Your task to perform on an android device: Search for vintage wall art on Etsy. Image 0: 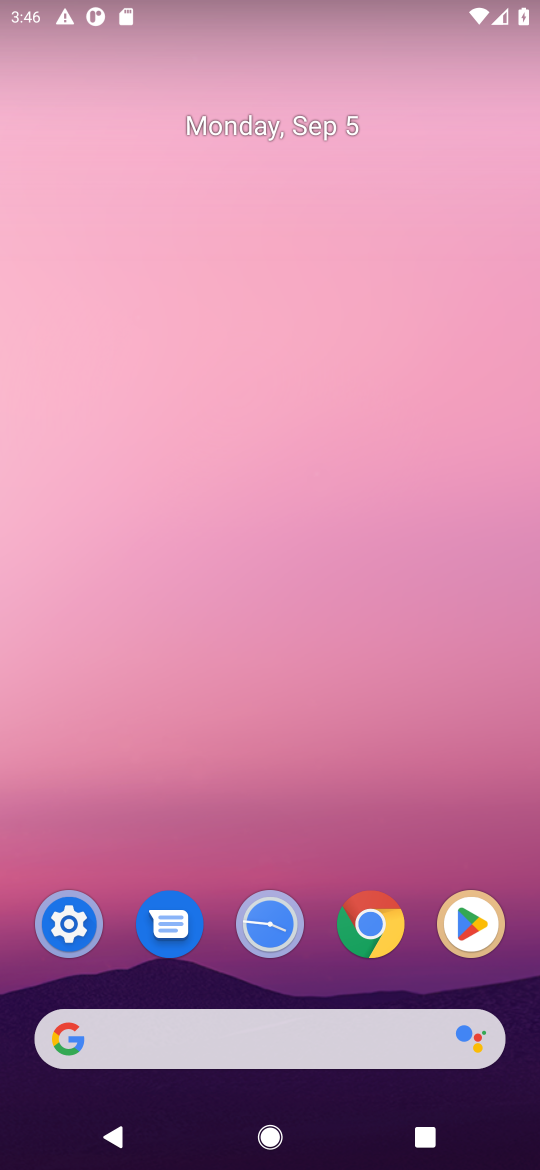
Step 0: click (374, 942)
Your task to perform on an android device: Search for vintage wall art on Etsy. Image 1: 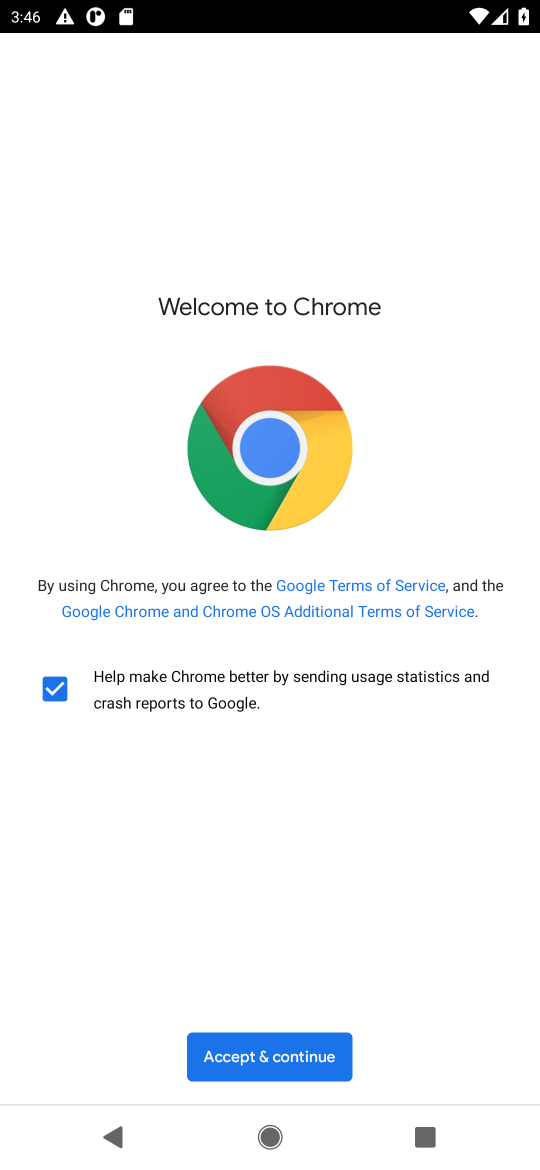
Step 1: click (241, 1063)
Your task to perform on an android device: Search for vintage wall art on Etsy. Image 2: 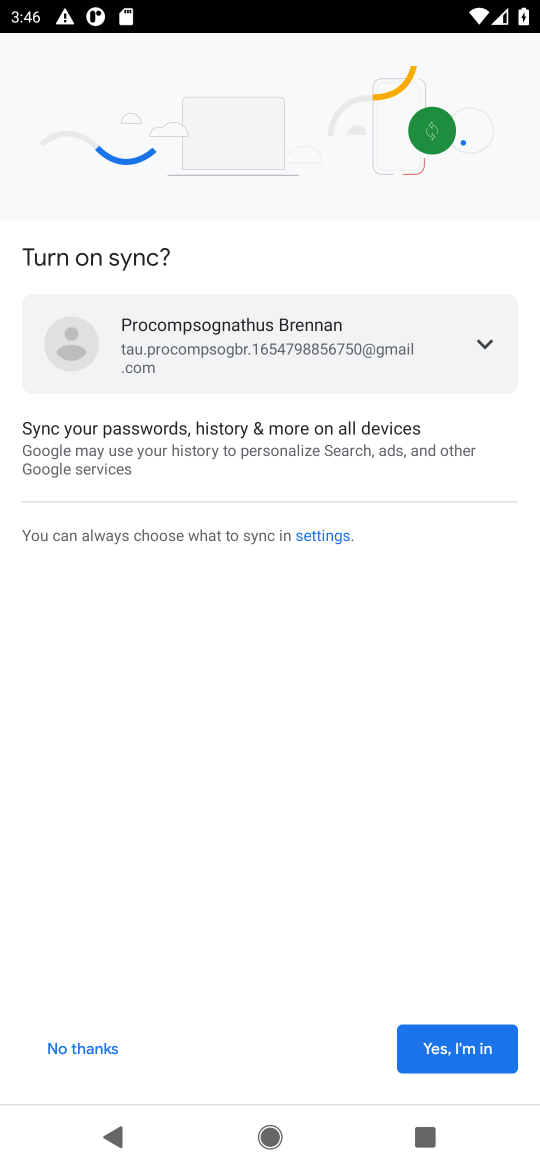
Step 2: click (457, 1037)
Your task to perform on an android device: Search for vintage wall art on Etsy. Image 3: 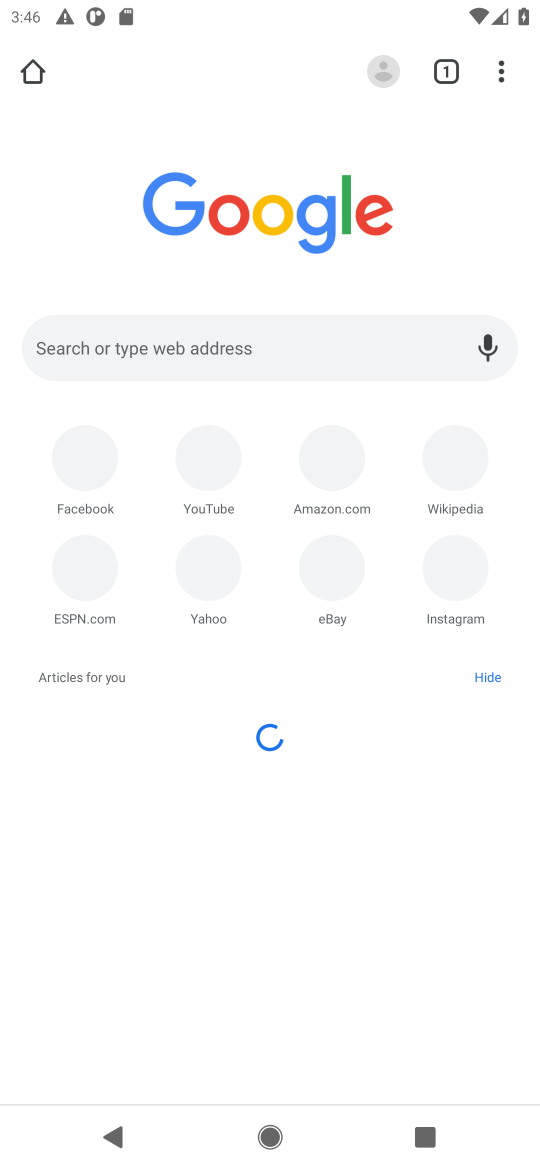
Step 3: click (204, 348)
Your task to perform on an android device: Search for vintage wall art on Etsy. Image 4: 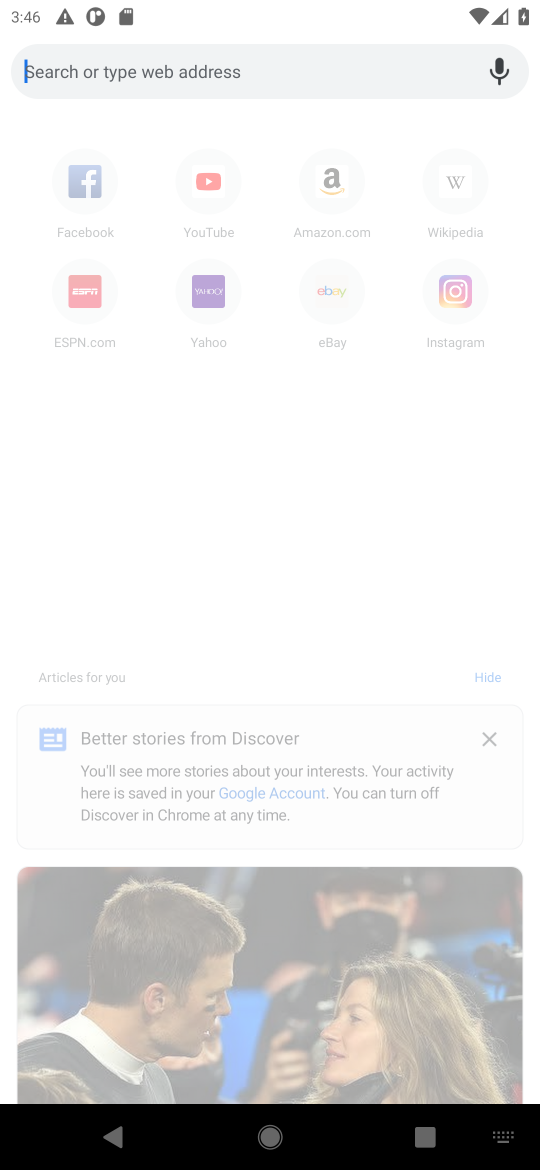
Step 4: type "etsy"
Your task to perform on an android device: Search for vintage wall art on Etsy. Image 5: 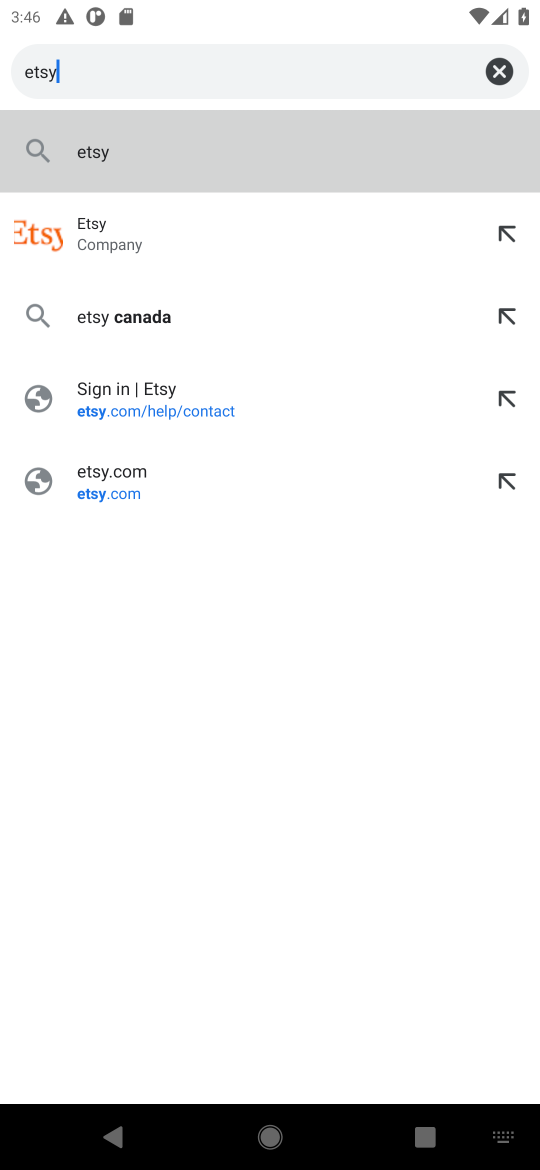
Step 5: click (95, 243)
Your task to perform on an android device: Search for vintage wall art on Etsy. Image 6: 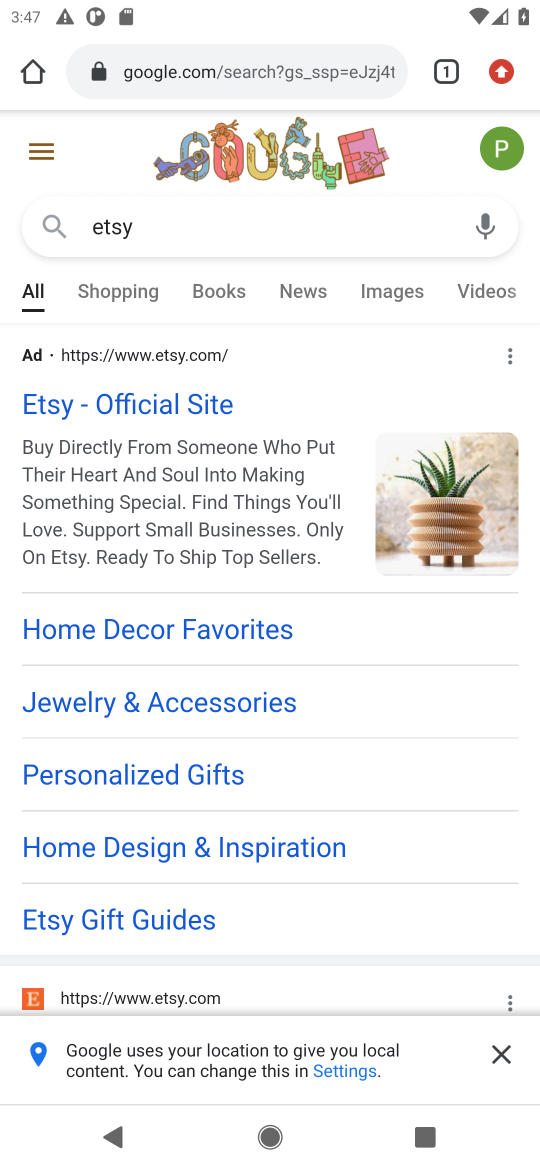
Step 6: drag from (533, 605) to (522, 885)
Your task to perform on an android device: Search for vintage wall art on Etsy. Image 7: 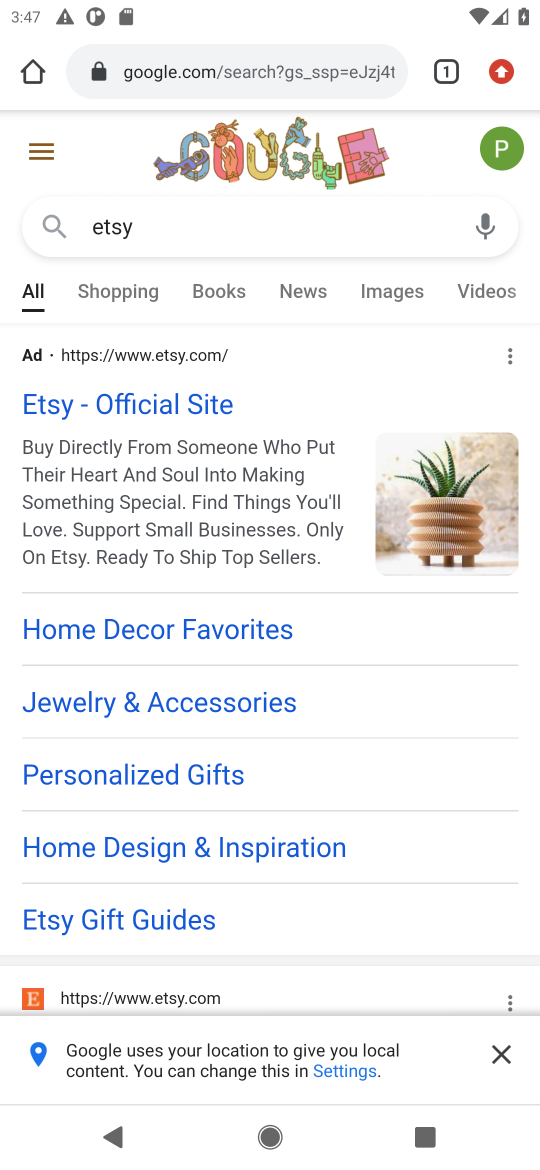
Step 7: drag from (361, 913) to (484, 368)
Your task to perform on an android device: Search for vintage wall art on Etsy. Image 8: 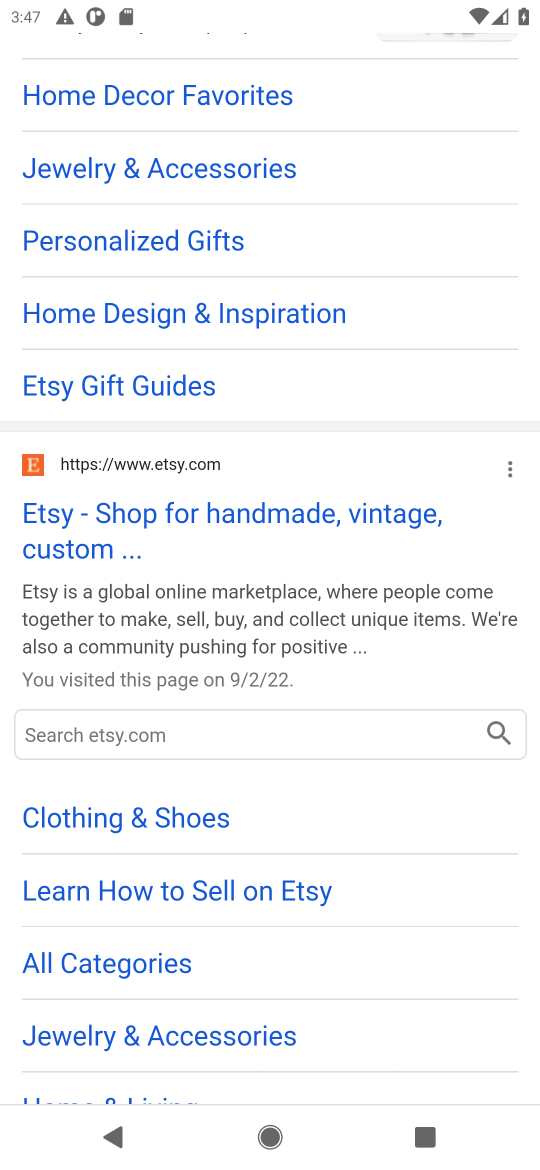
Step 8: click (65, 513)
Your task to perform on an android device: Search for vintage wall art on Etsy. Image 9: 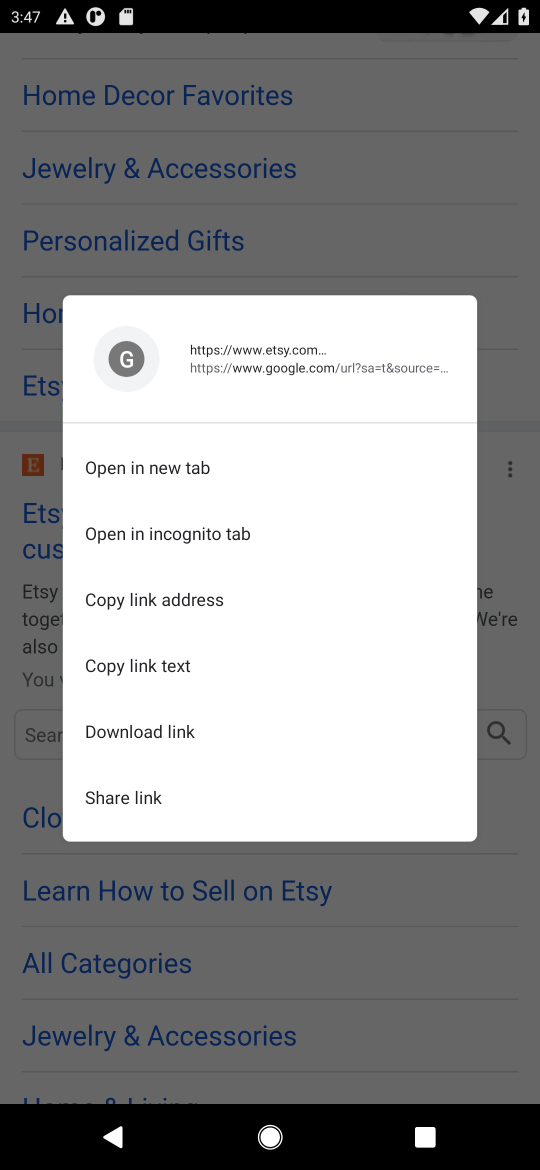
Step 9: click (514, 895)
Your task to perform on an android device: Search for vintage wall art on Etsy. Image 10: 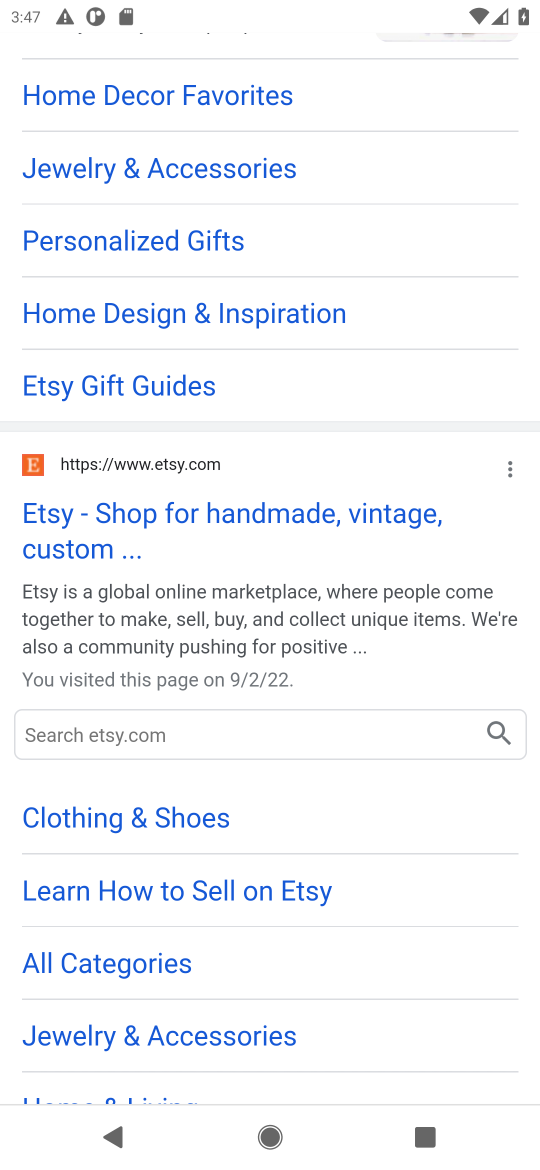
Step 10: click (118, 512)
Your task to perform on an android device: Search for vintage wall art on Etsy. Image 11: 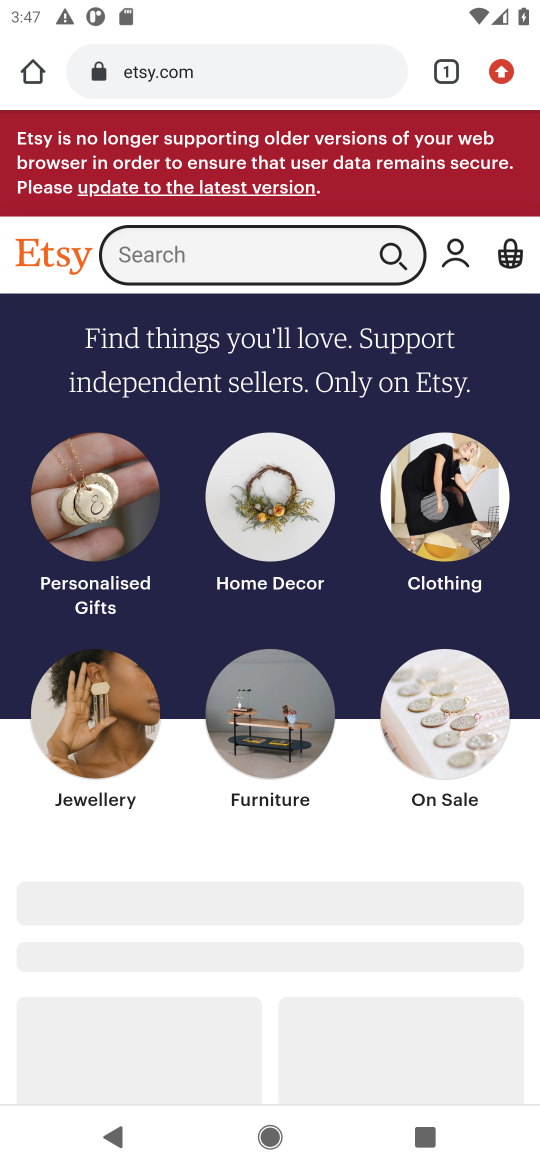
Step 11: click (265, 263)
Your task to perform on an android device: Search for vintage wall art on Etsy. Image 12: 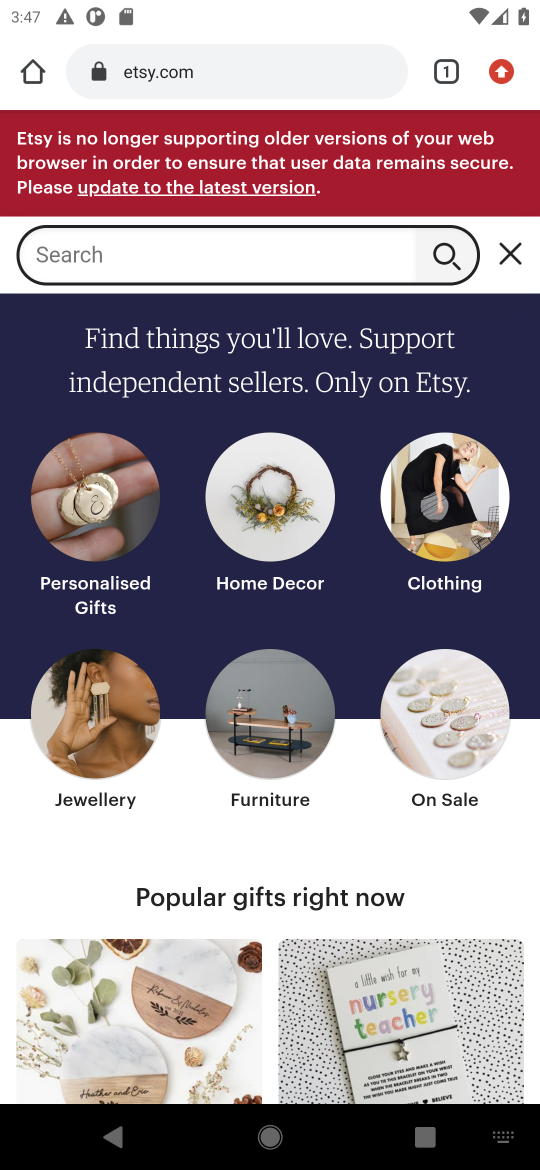
Step 12: type "vintage wall"
Your task to perform on an android device: Search for vintage wall art on Etsy. Image 13: 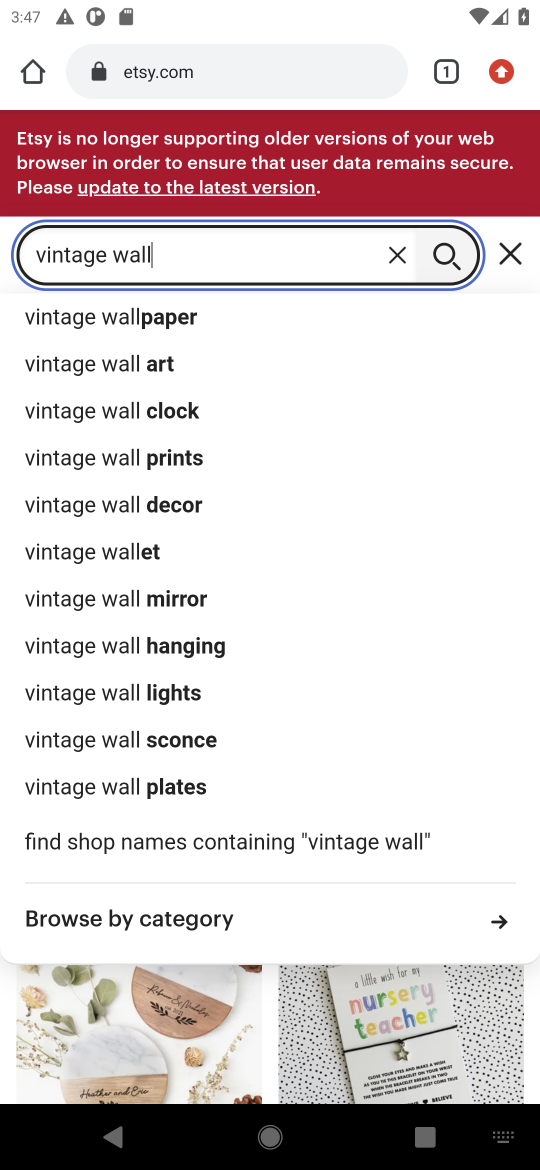
Step 13: click (91, 378)
Your task to perform on an android device: Search for vintage wall art on Etsy. Image 14: 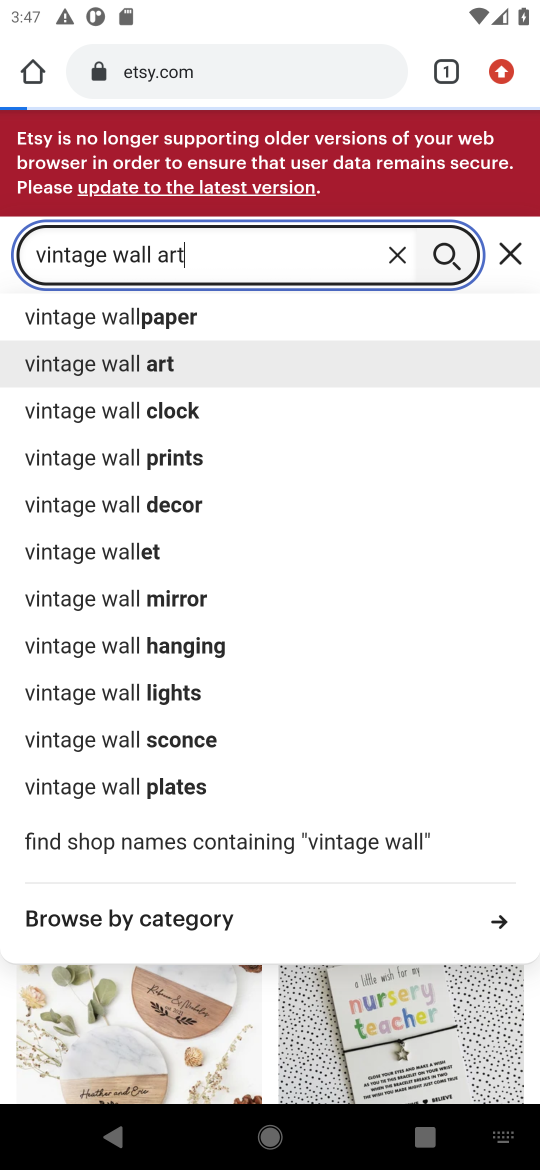
Step 14: click (36, 373)
Your task to perform on an android device: Search for vintage wall art on Etsy. Image 15: 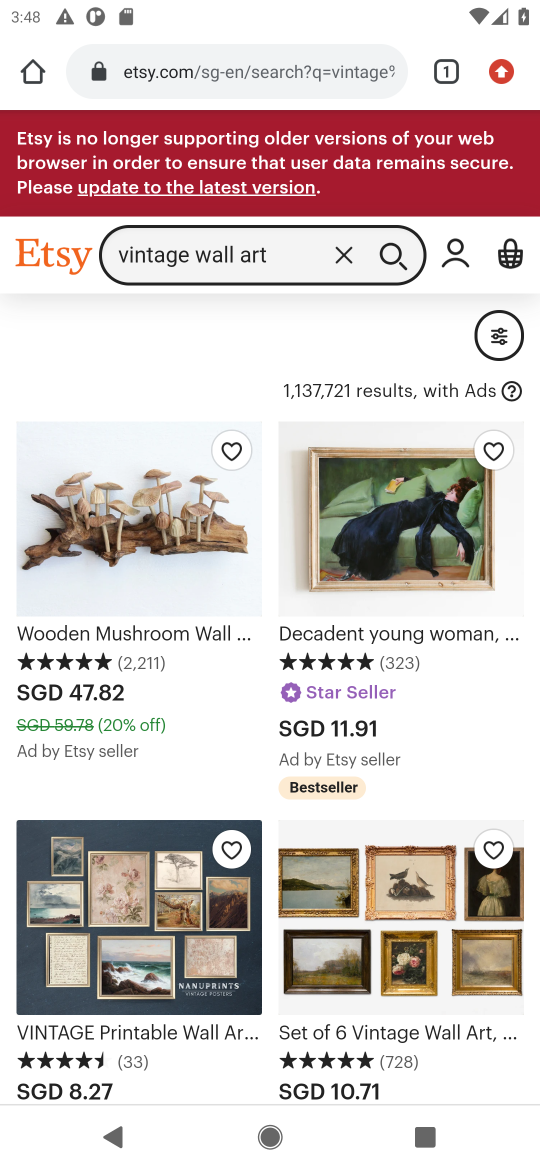
Step 15: task complete